Your task to perform on an android device: open app "Microsoft Outlook" Image 0: 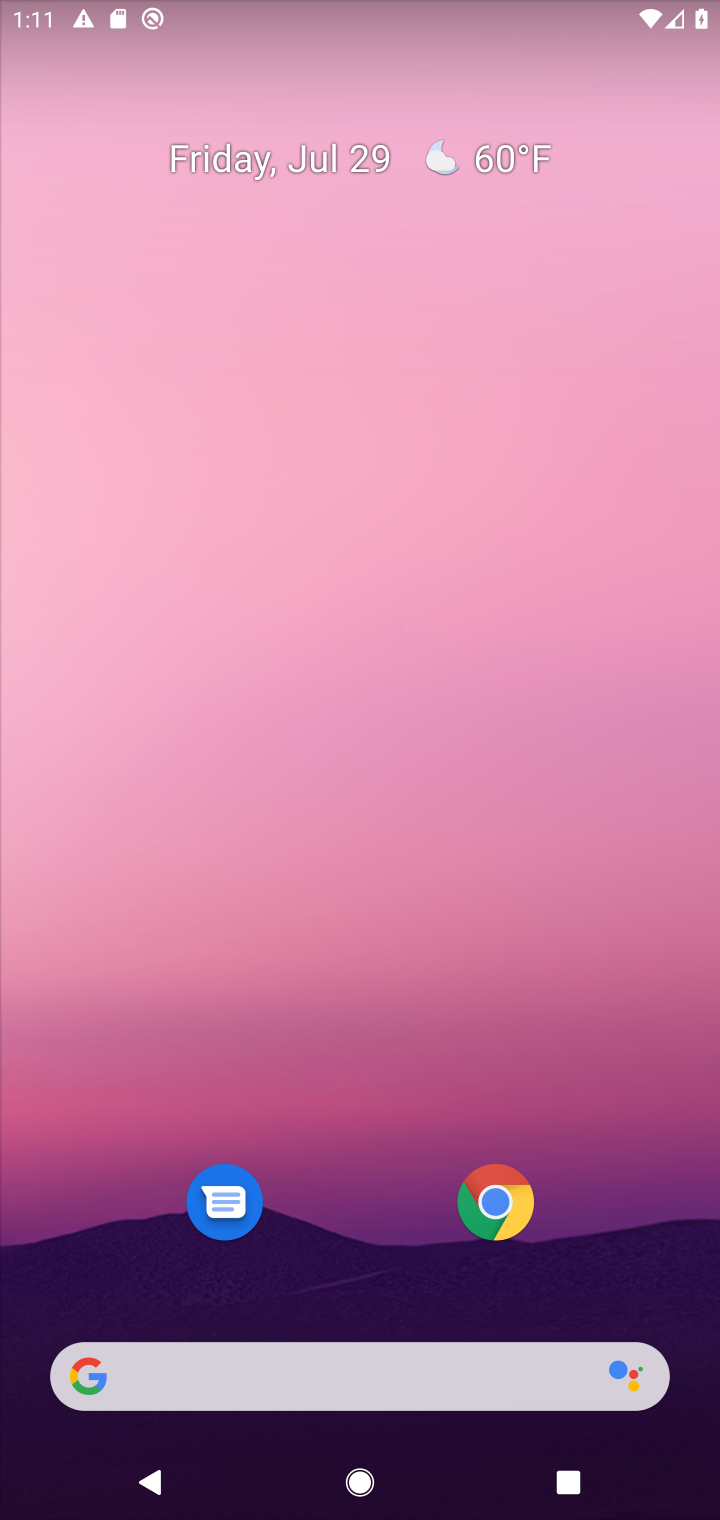
Step 0: click (338, 1380)
Your task to perform on an android device: open app "Microsoft Outlook" Image 1: 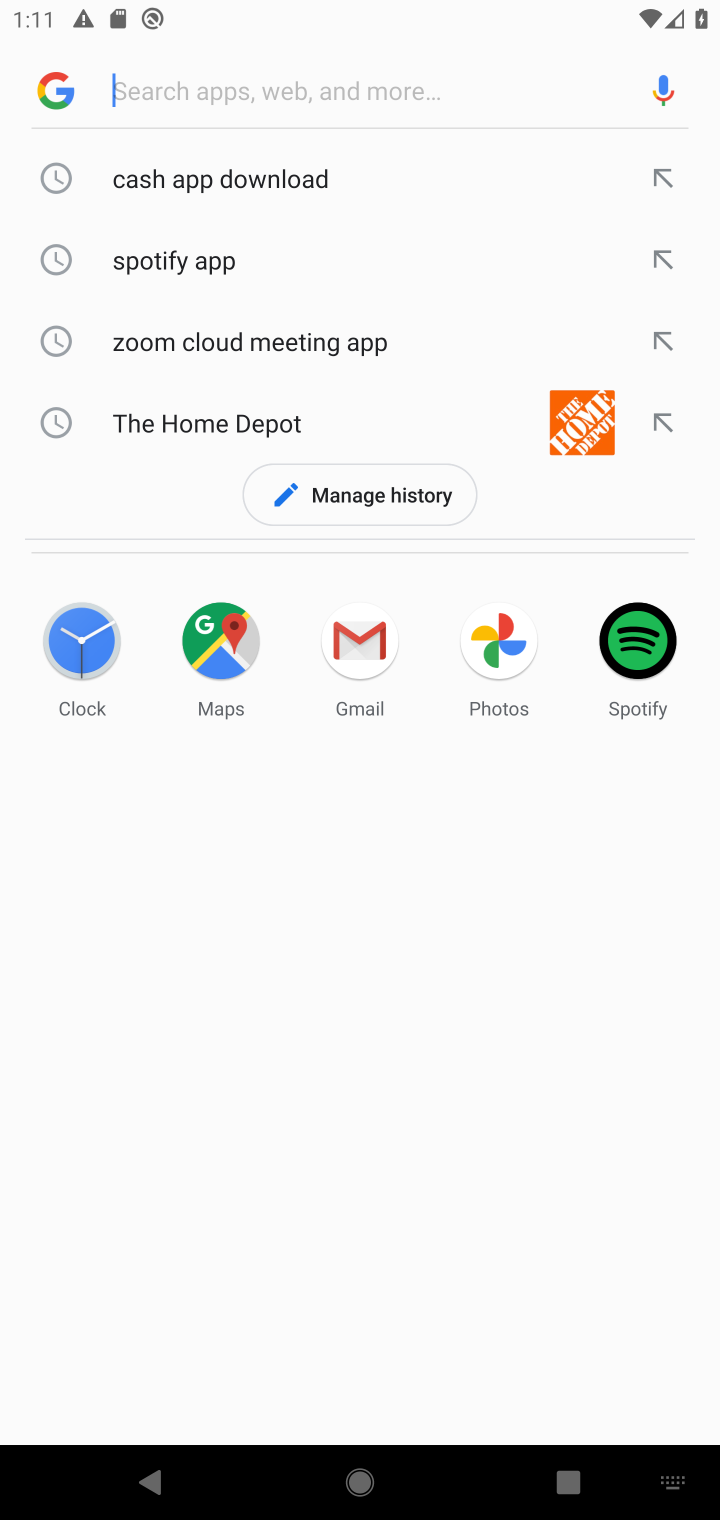
Step 1: type "microsoft outlook"
Your task to perform on an android device: open app "Microsoft Outlook" Image 2: 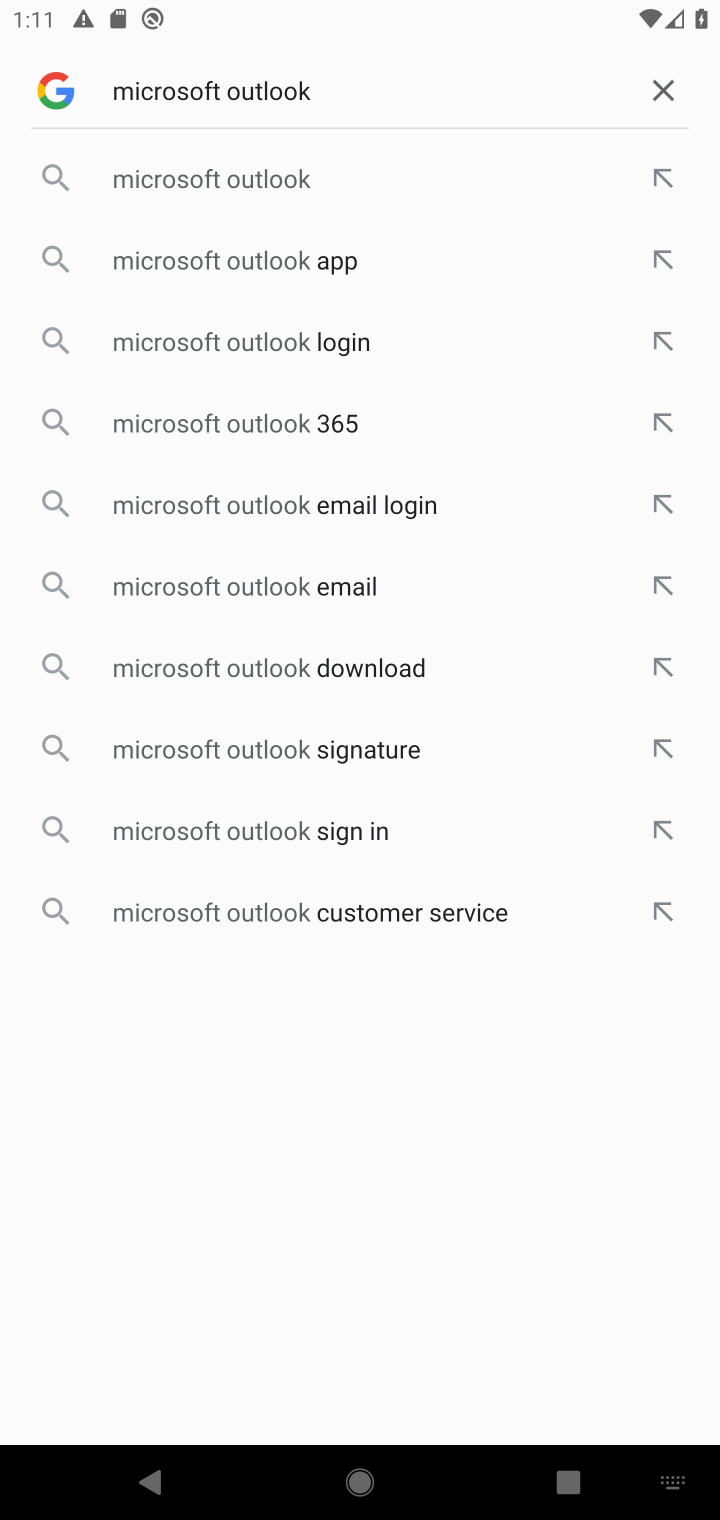
Step 2: click (296, 188)
Your task to perform on an android device: open app "Microsoft Outlook" Image 3: 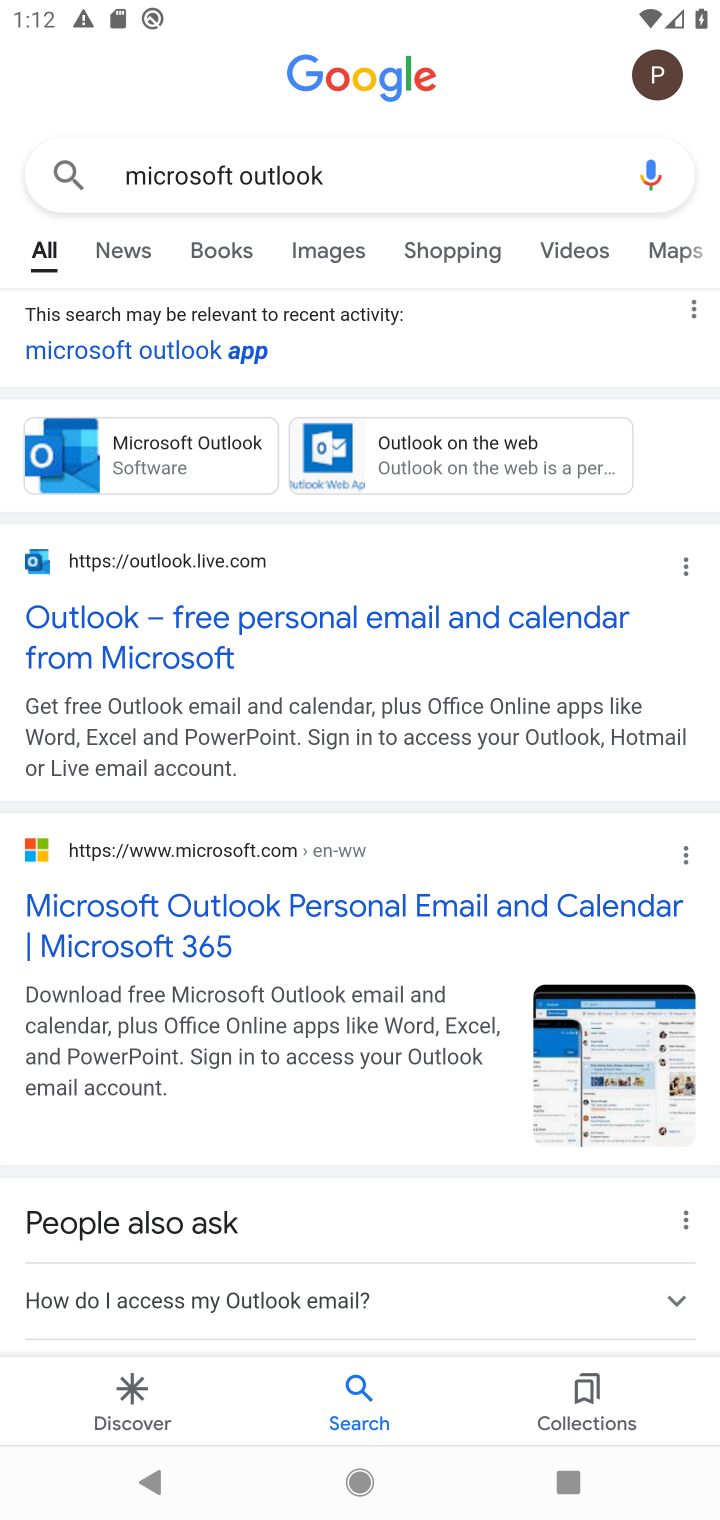
Step 3: drag from (350, 1138) to (375, 131)
Your task to perform on an android device: open app "Microsoft Outlook" Image 4: 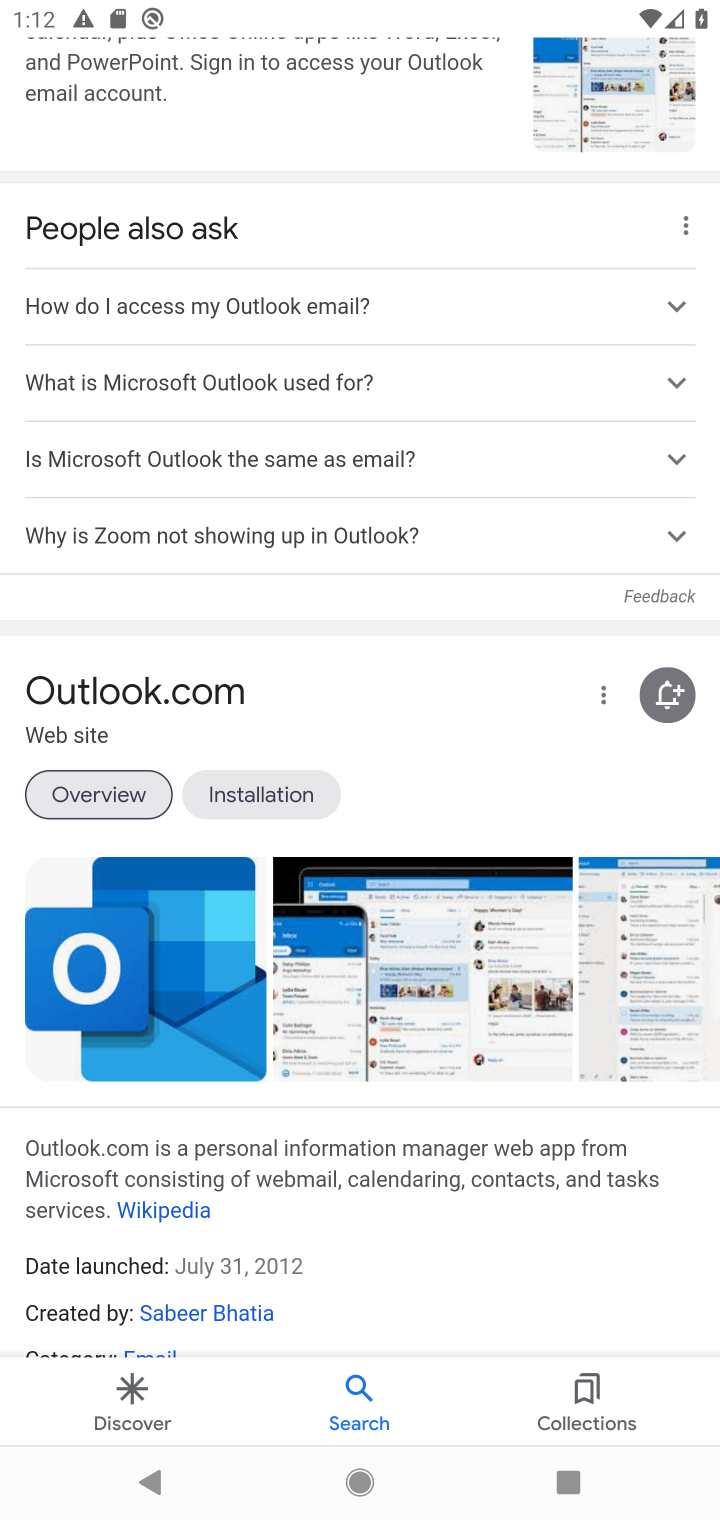
Step 4: drag from (531, 781) to (579, 9)
Your task to perform on an android device: open app "Microsoft Outlook" Image 5: 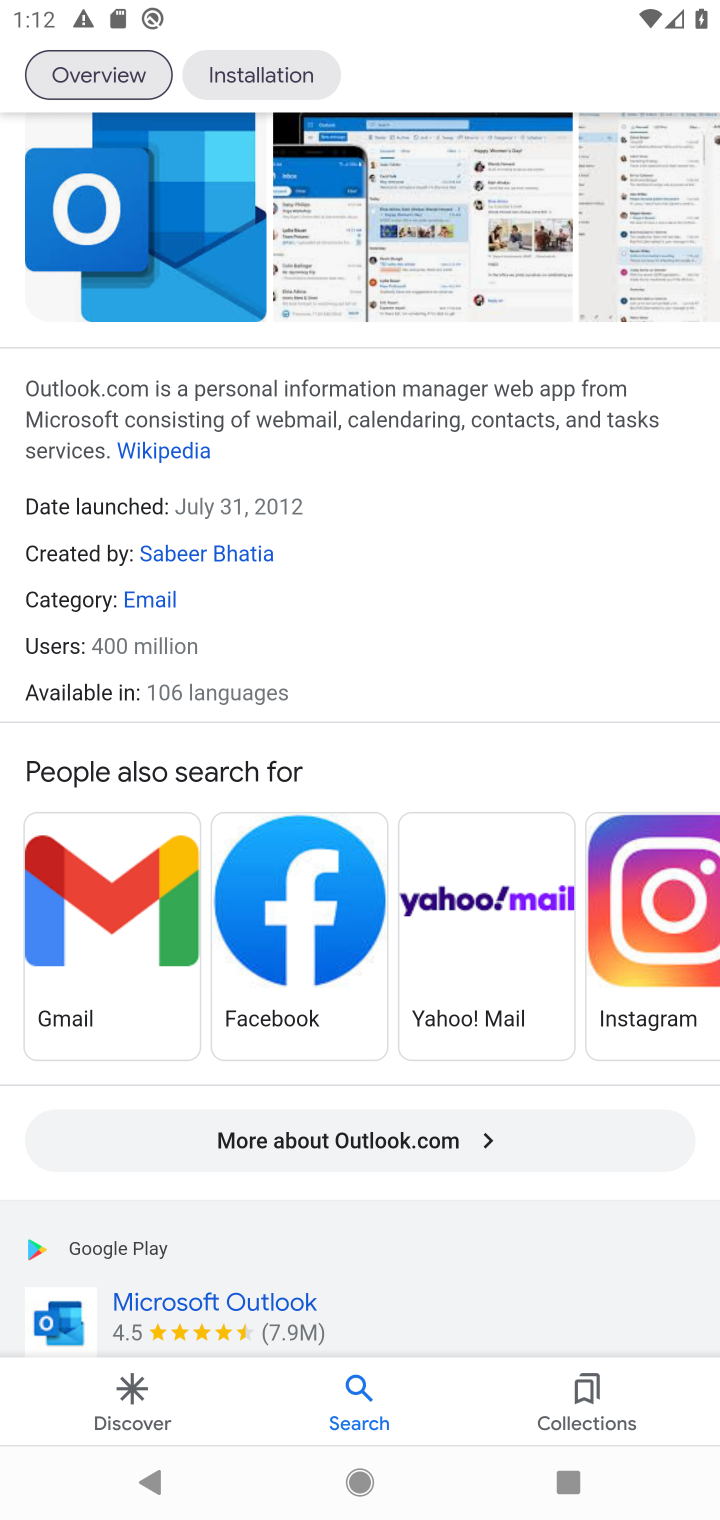
Step 5: drag from (418, 1245) to (387, 409)
Your task to perform on an android device: open app "Microsoft Outlook" Image 6: 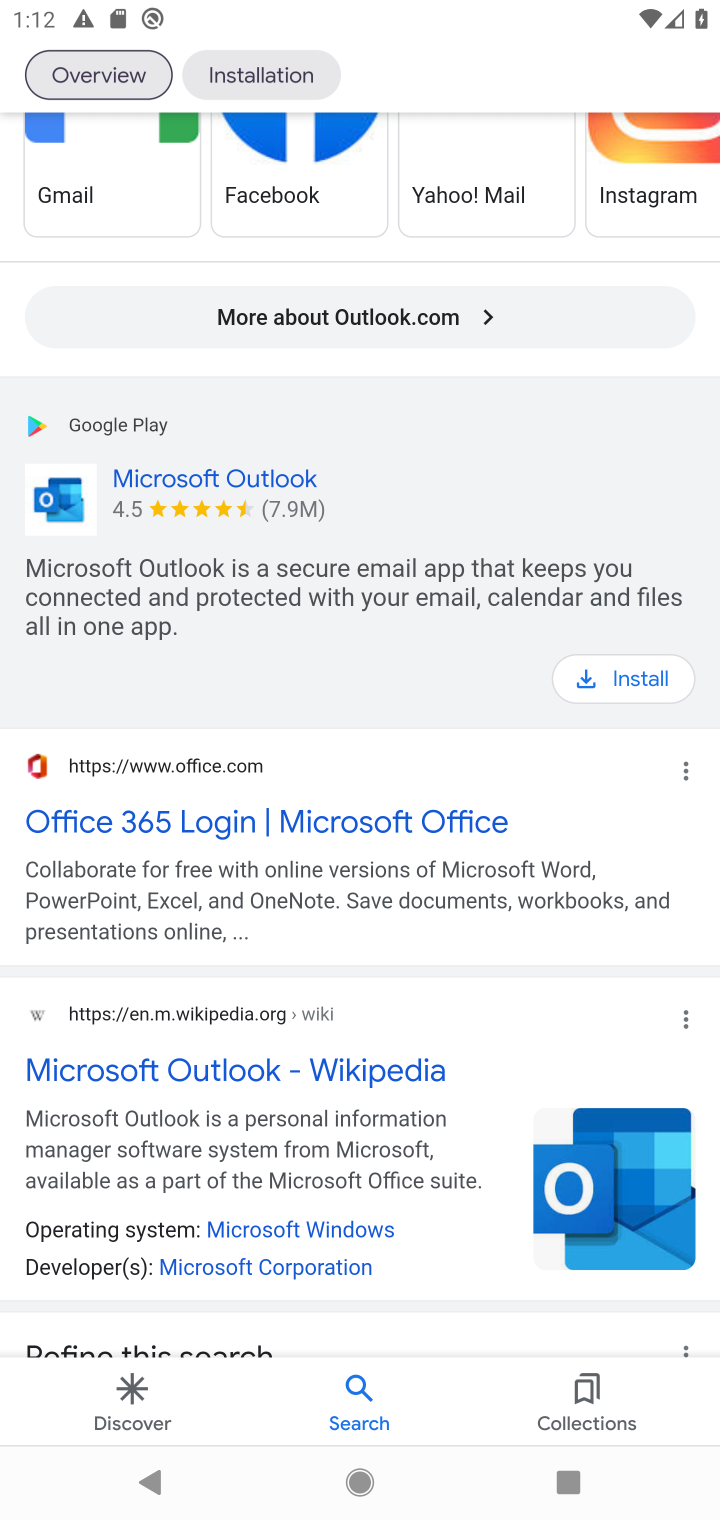
Step 6: click (594, 688)
Your task to perform on an android device: open app "Microsoft Outlook" Image 7: 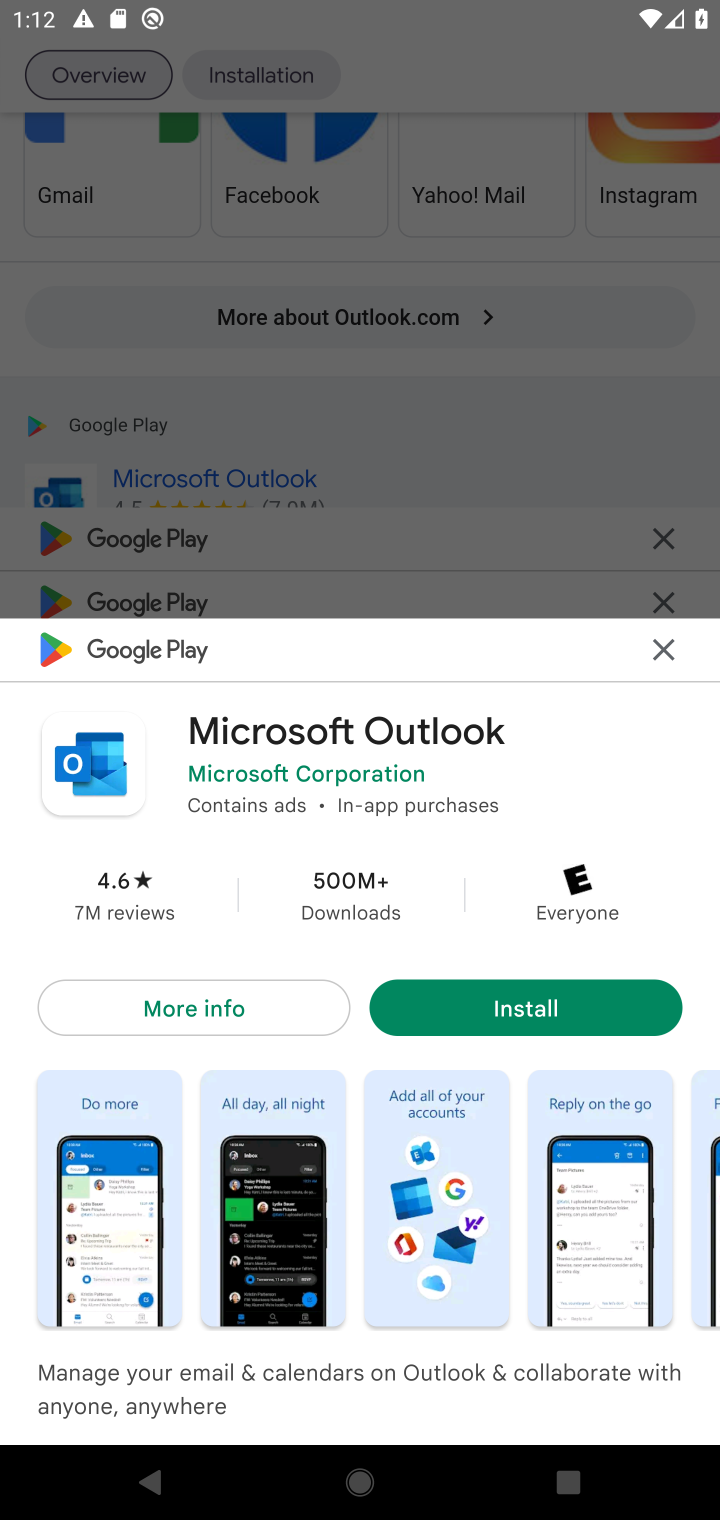
Step 7: click (542, 993)
Your task to perform on an android device: open app "Microsoft Outlook" Image 8: 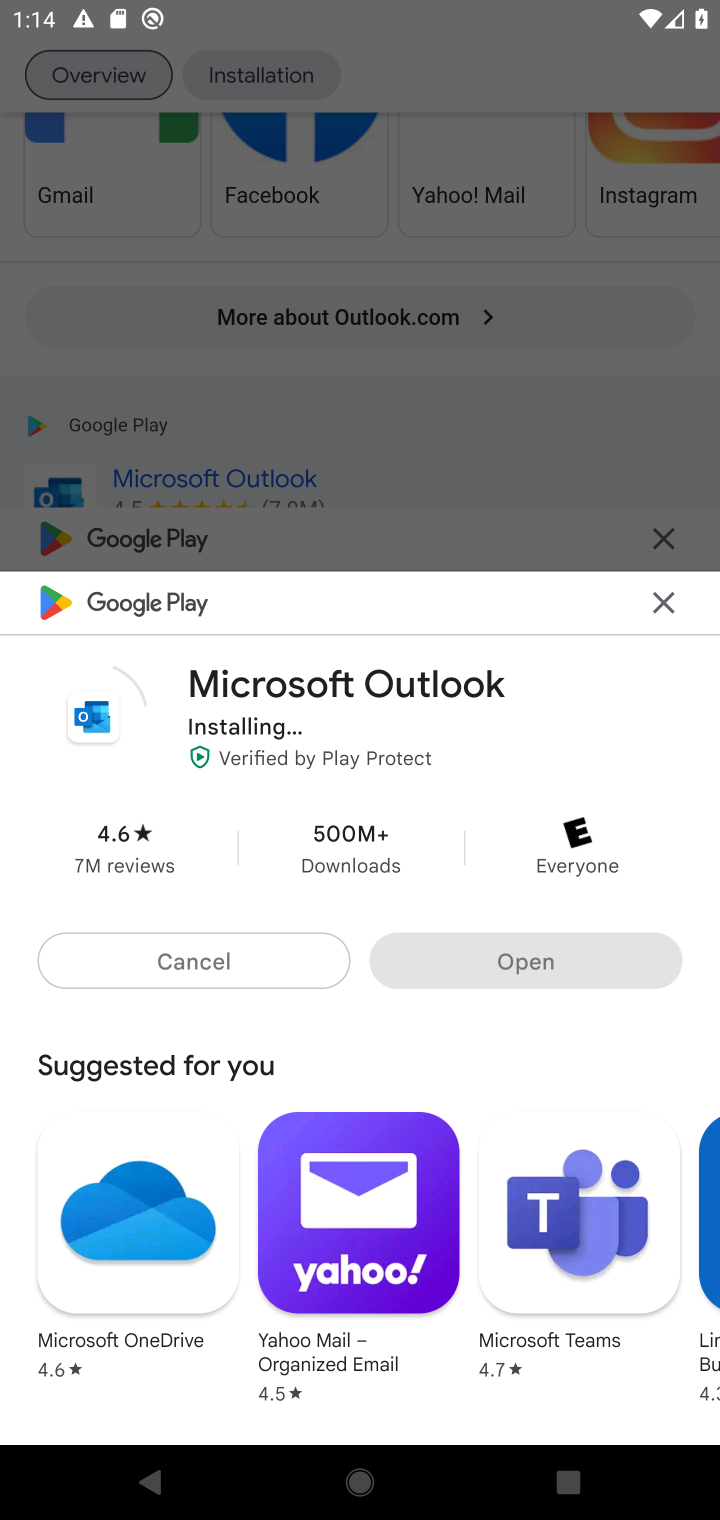
Step 8: task complete